Your task to perform on an android device: toggle wifi Image 0: 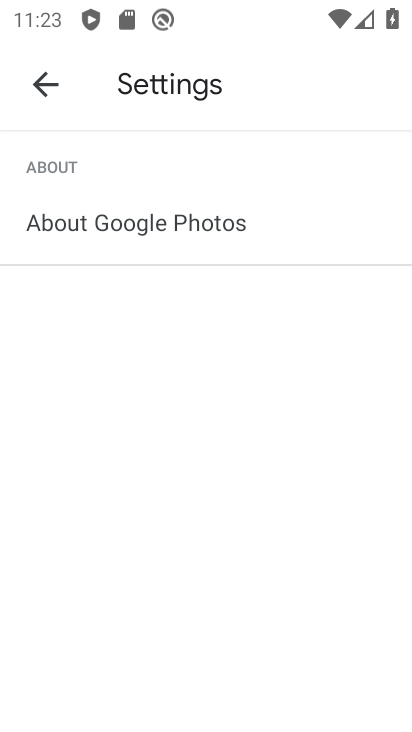
Step 0: press home button
Your task to perform on an android device: toggle wifi Image 1: 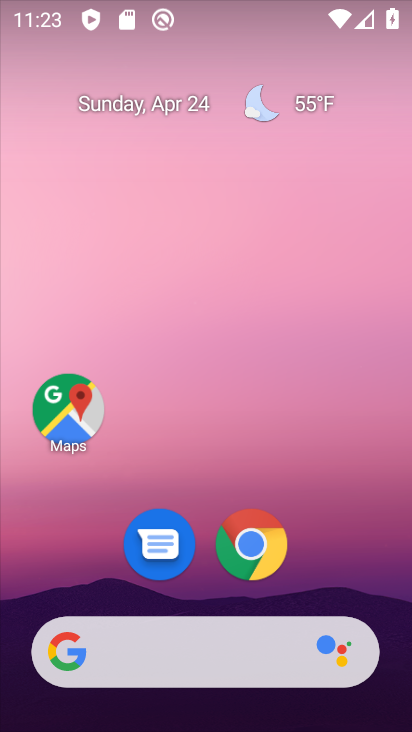
Step 1: drag from (181, 325) to (167, 67)
Your task to perform on an android device: toggle wifi Image 2: 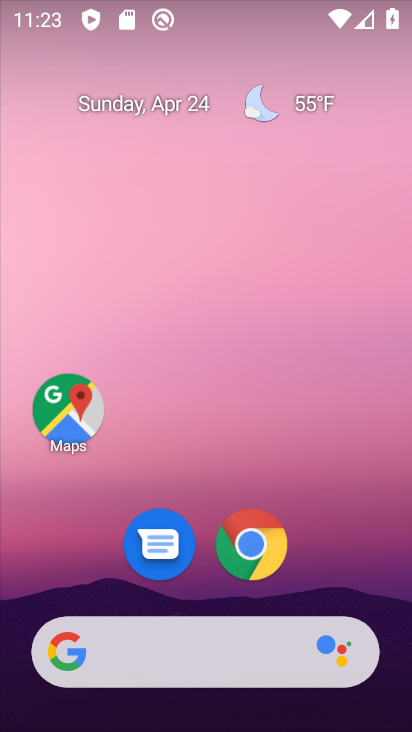
Step 2: drag from (339, 517) to (225, 34)
Your task to perform on an android device: toggle wifi Image 3: 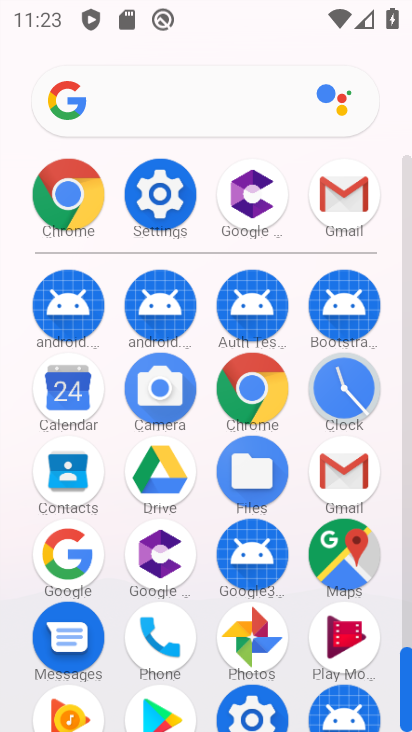
Step 3: click (166, 183)
Your task to perform on an android device: toggle wifi Image 4: 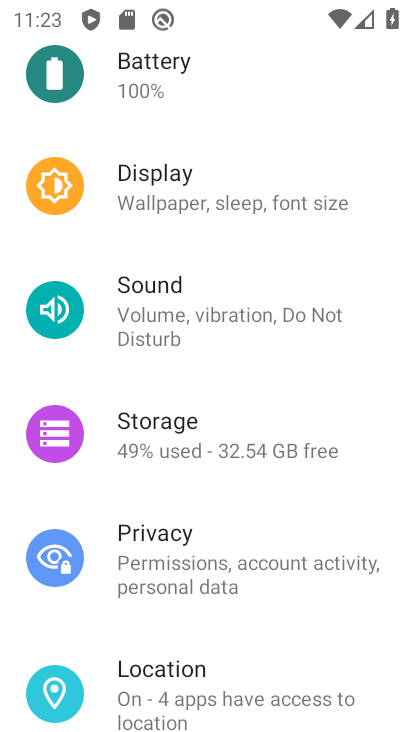
Step 4: drag from (280, 154) to (258, 594)
Your task to perform on an android device: toggle wifi Image 5: 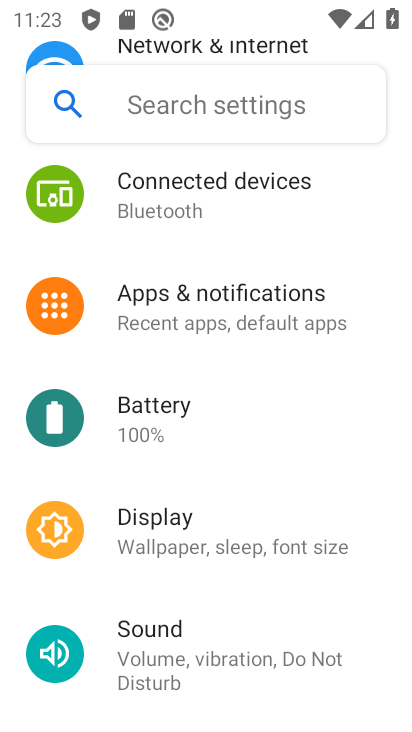
Step 5: drag from (346, 224) to (295, 606)
Your task to perform on an android device: toggle wifi Image 6: 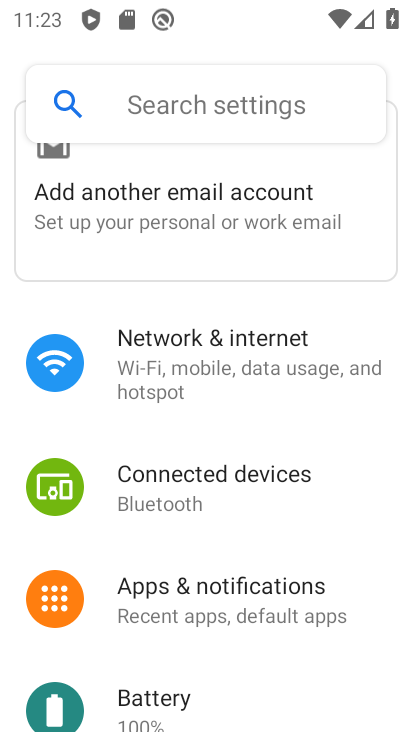
Step 6: click (196, 372)
Your task to perform on an android device: toggle wifi Image 7: 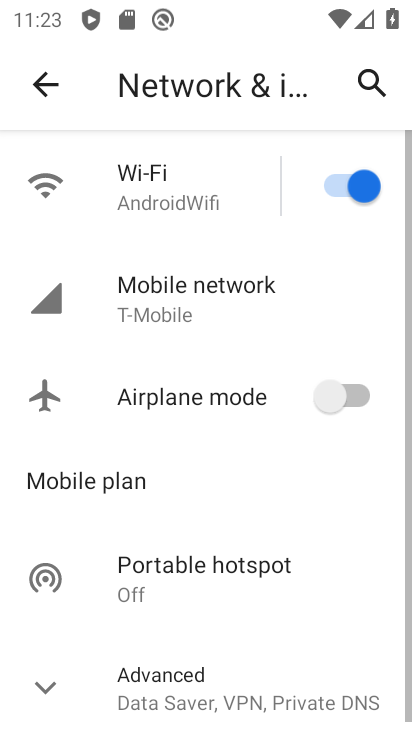
Step 7: click (362, 180)
Your task to perform on an android device: toggle wifi Image 8: 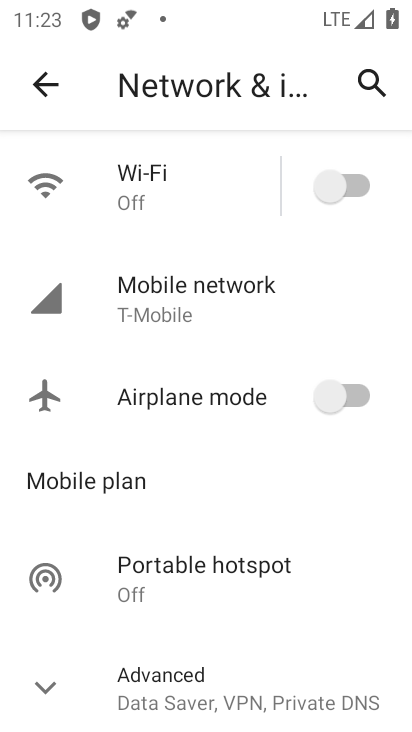
Step 8: task complete